Your task to perform on an android device: Is it going to rain tomorrow? Image 0: 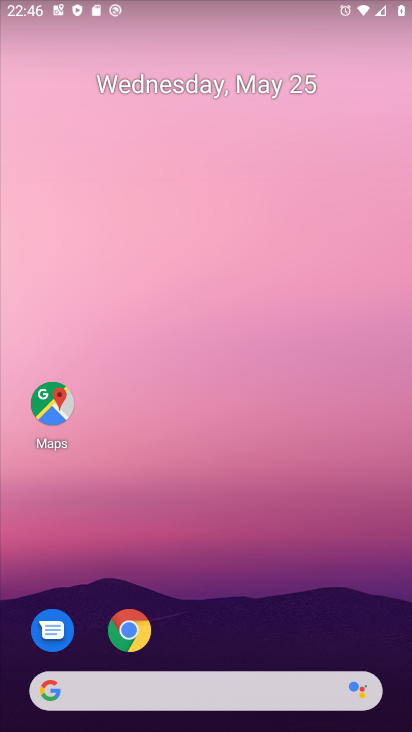
Step 0: drag from (189, 632) to (187, 199)
Your task to perform on an android device: Is it going to rain tomorrow? Image 1: 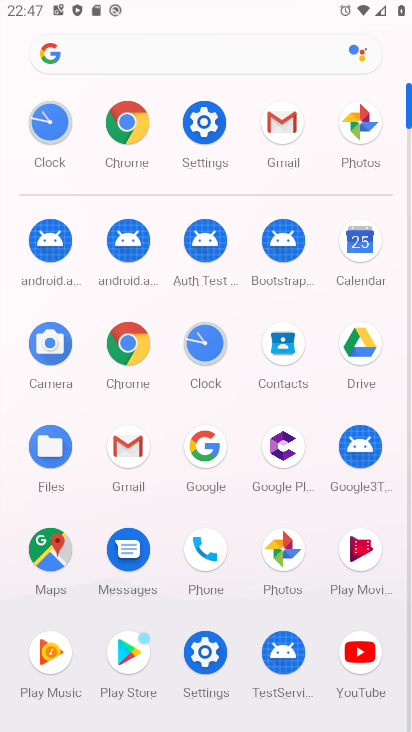
Step 1: click (218, 455)
Your task to perform on an android device: Is it going to rain tomorrow? Image 2: 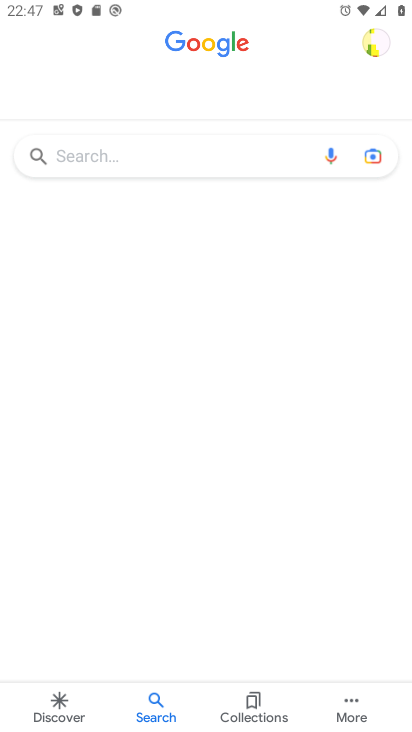
Step 2: click (166, 153)
Your task to perform on an android device: Is it going to rain tomorrow? Image 3: 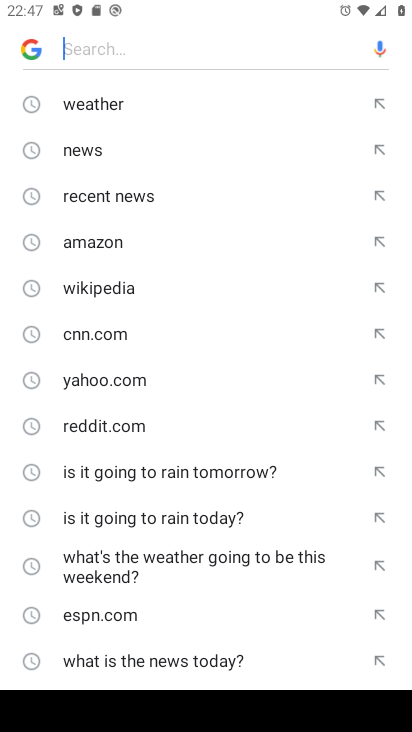
Step 3: click (101, 102)
Your task to perform on an android device: Is it going to rain tomorrow? Image 4: 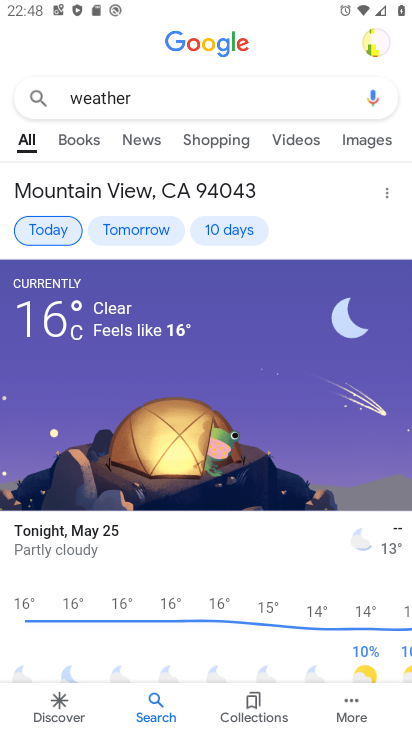
Step 4: click (140, 228)
Your task to perform on an android device: Is it going to rain tomorrow? Image 5: 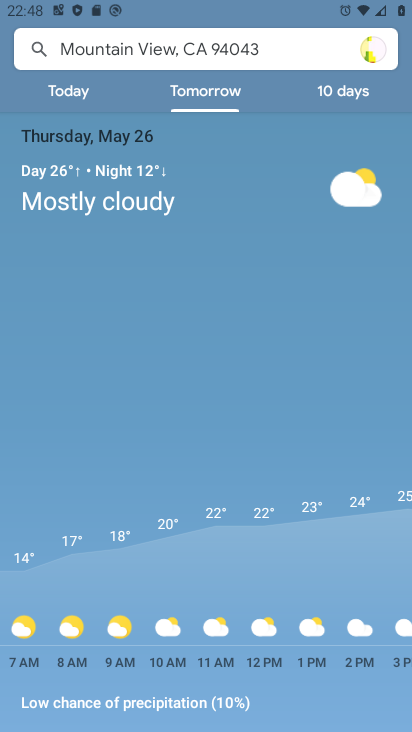
Step 5: task complete